Your task to perform on an android device: Open CNN.com Image 0: 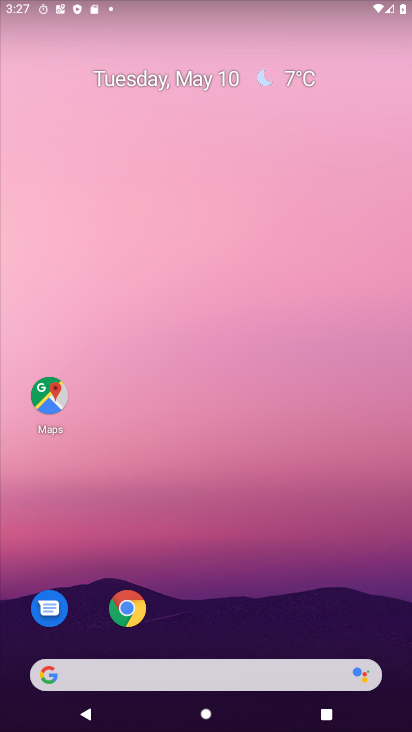
Step 0: click (131, 610)
Your task to perform on an android device: Open CNN.com Image 1: 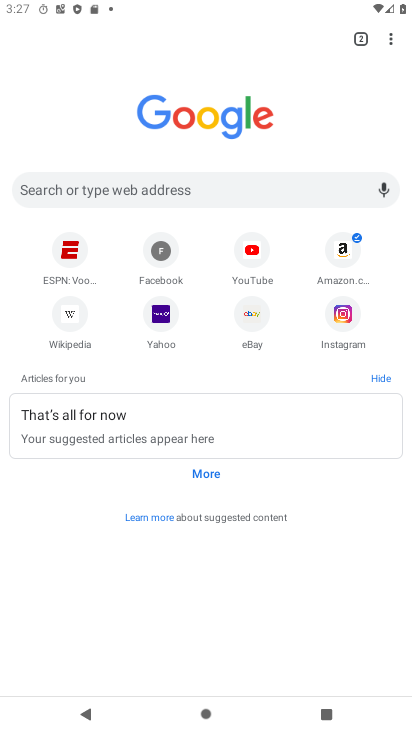
Step 1: click (137, 192)
Your task to perform on an android device: Open CNN.com Image 2: 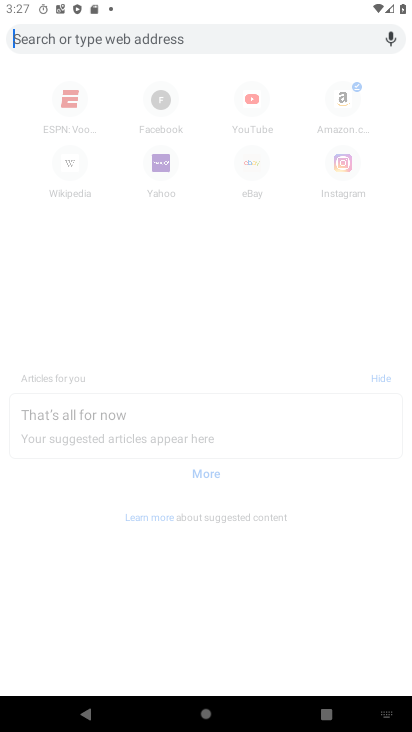
Step 2: type "cnn.com"
Your task to perform on an android device: Open CNN.com Image 3: 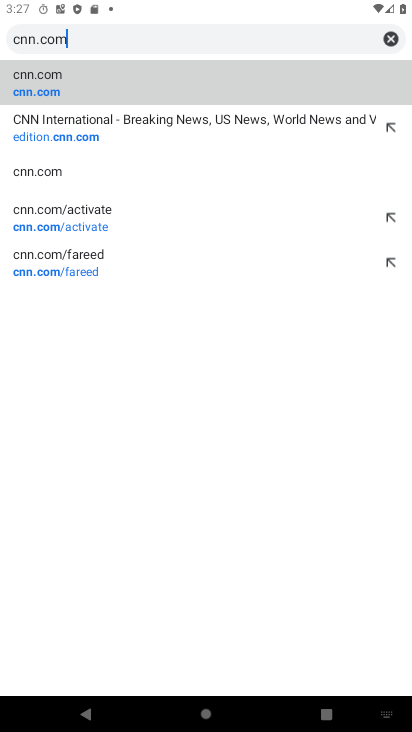
Step 3: click (27, 90)
Your task to perform on an android device: Open CNN.com Image 4: 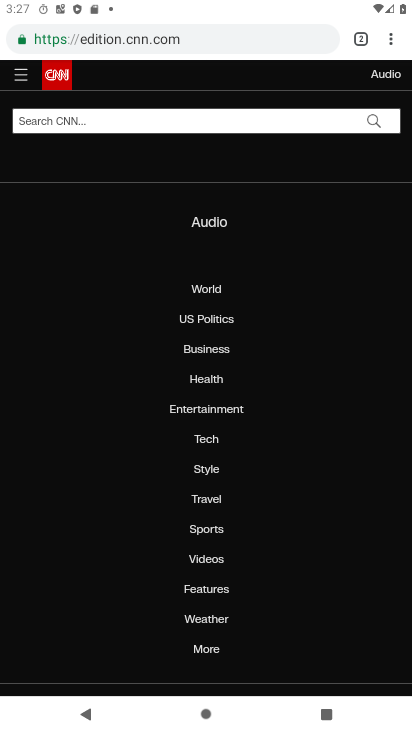
Step 4: task complete